Your task to perform on an android device: Open Chrome and go to settings Image 0: 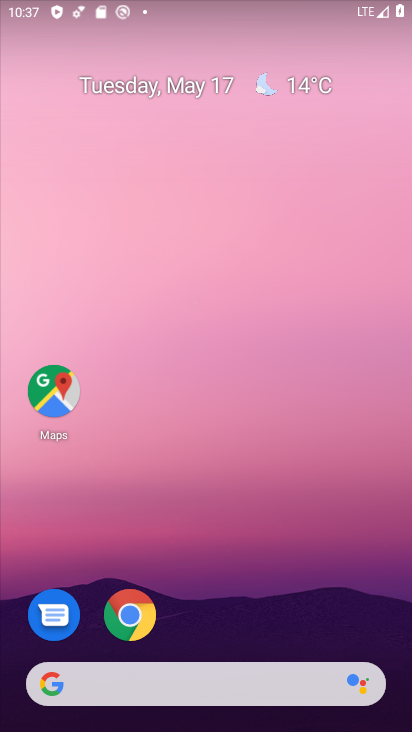
Step 0: click (142, 615)
Your task to perform on an android device: Open Chrome and go to settings Image 1: 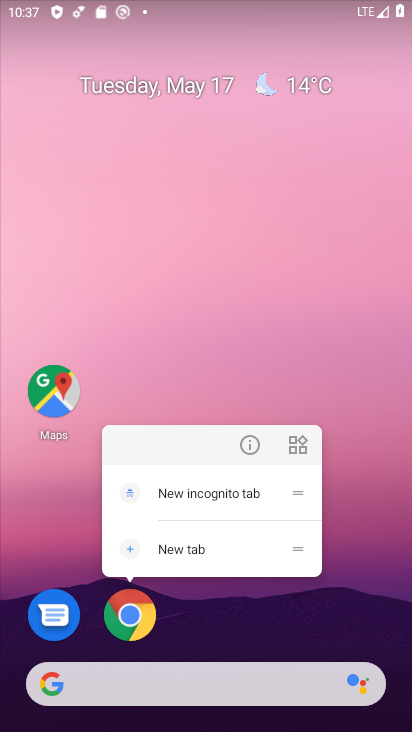
Step 1: click (136, 614)
Your task to perform on an android device: Open Chrome and go to settings Image 2: 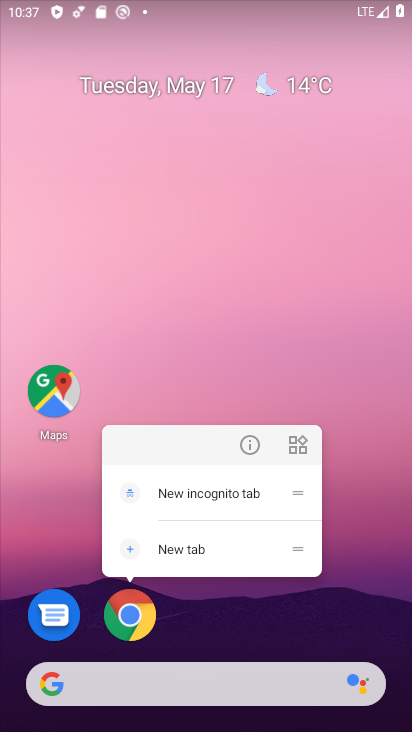
Step 2: click (133, 616)
Your task to perform on an android device: Open Chrome and go to settings Image 3: 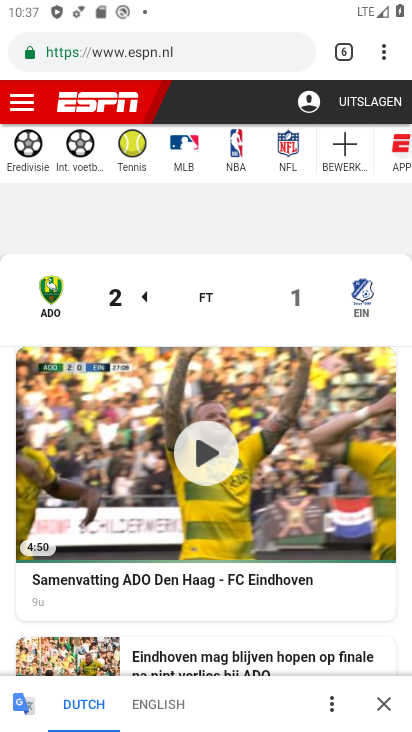
Step 3: task complete